Your task to perform on an android device: open the mobile data screen to see how much data has been used Image 0: 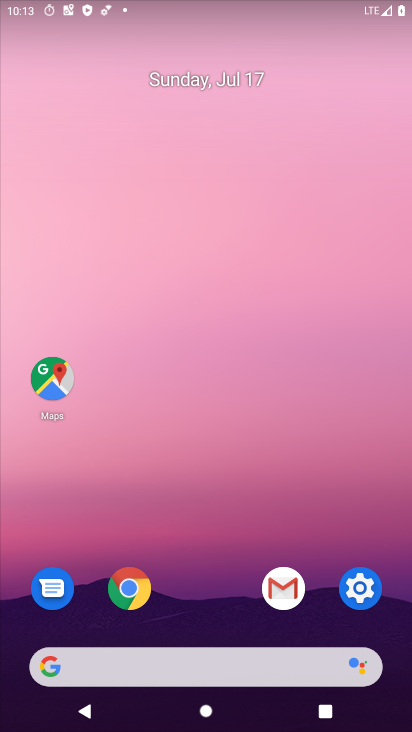
Step 0: press home button
Your task to perform on an android device: open the mobile data screen to see how much data has been used Image 1: 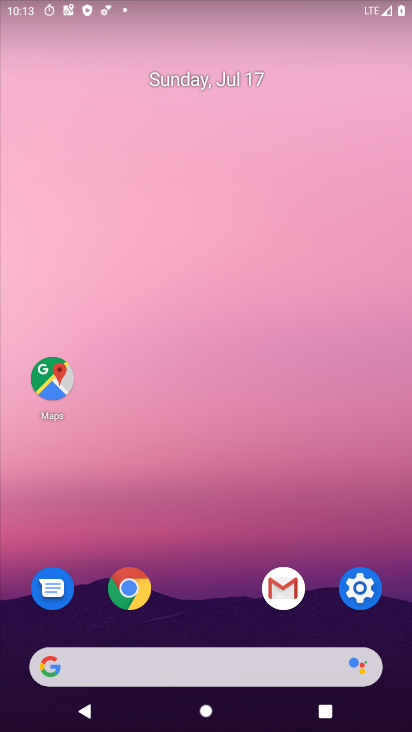
Step 1: click (371, 596)
Your task to perform on an android device: open the mobile data screen to see how much data has been used Image 2: 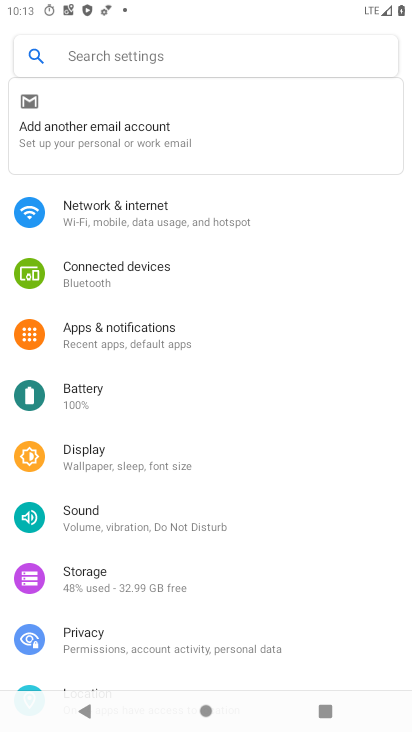
Step 2: click (139, 43)
Your task to perform on an android device: open the mobile data screen to see how much data has been used Image 3: 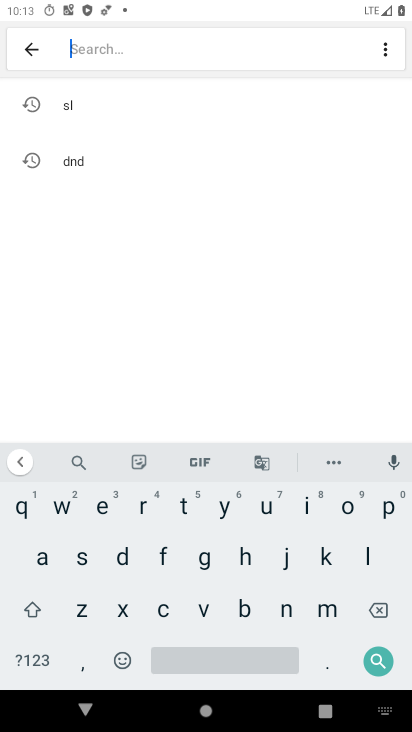
Step 3: click (110, 546)
Your task to perform on an android device: open the mobile data screen to see how much data has been used Image 4: 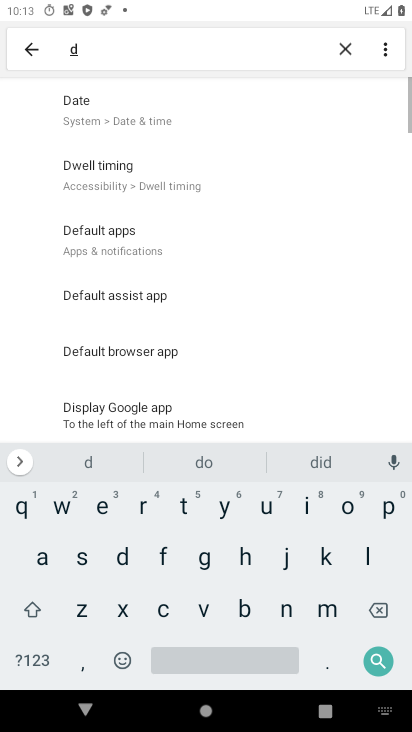
Step 4: click (35, 549)
Your task to perform on an android device: open the mobile data screen to see how much data has been used Image 5: 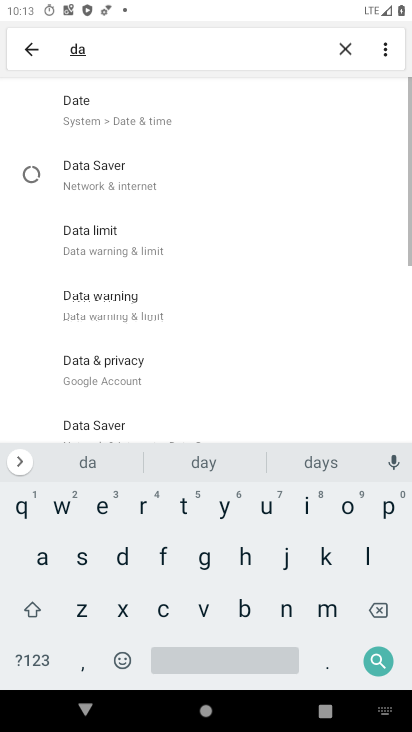
Step 5: click (189, 498)
Your task to perform on an android device: open the mobile data screen to see how much data has been used Image 6: 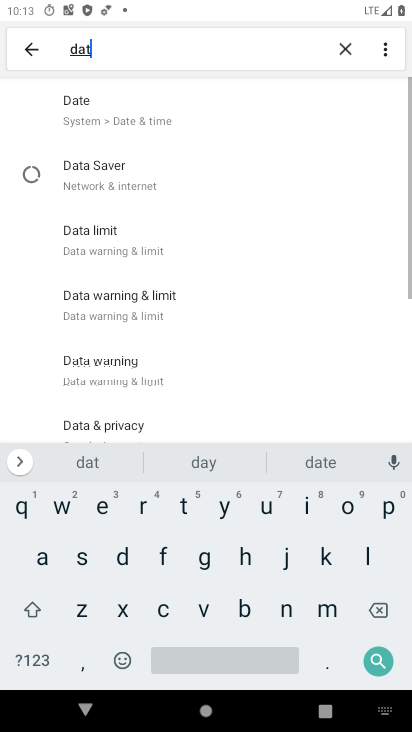
Step 6: click (46, 548)
Your task to perform on an android device: open the mobile data screen to see how much data has been used Image 7: 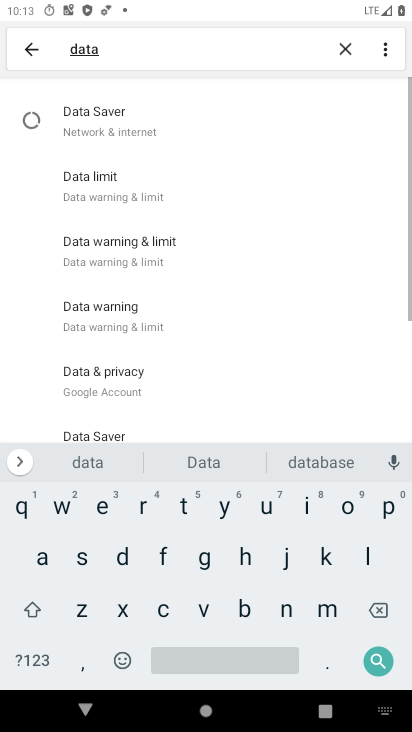
Step 7: click (204, 650)
Your task to perform on an android device: open the mobile data screen to see how much data has been used Image 8: 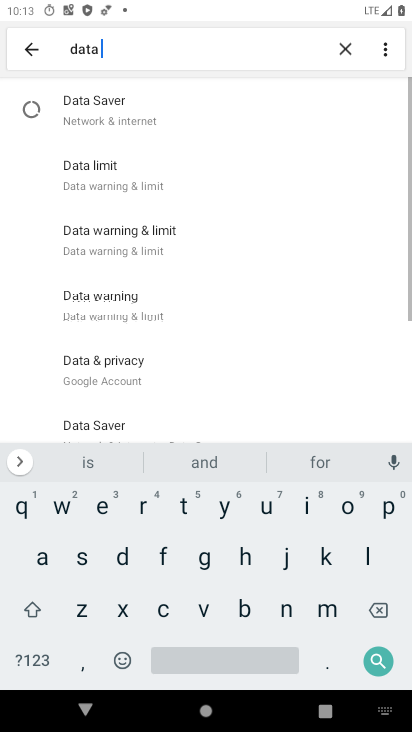
Step 8: click (263, 515)
Your task to perform on an android device: open the mobile data screen to see how much data has been used Image 9: 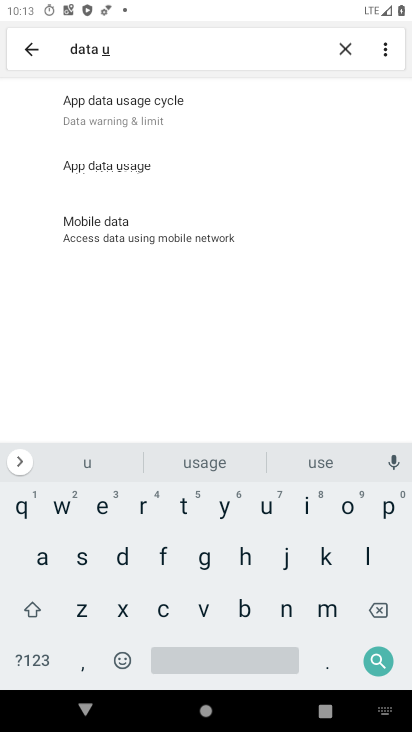
Step 9: click (179, 163)
Your task to perform on an android device: open the mobile data screen to see how much data has been used Image 10: 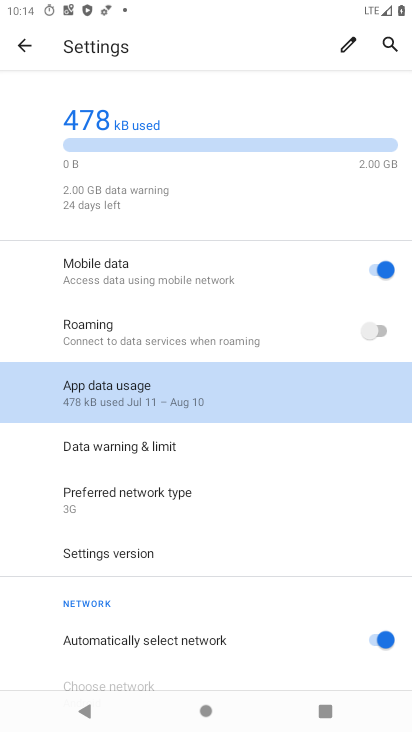
Step 10: click (177, 405)
Your task to perform on an android device: open the mobile data screen to see how much data has been used Image 11: 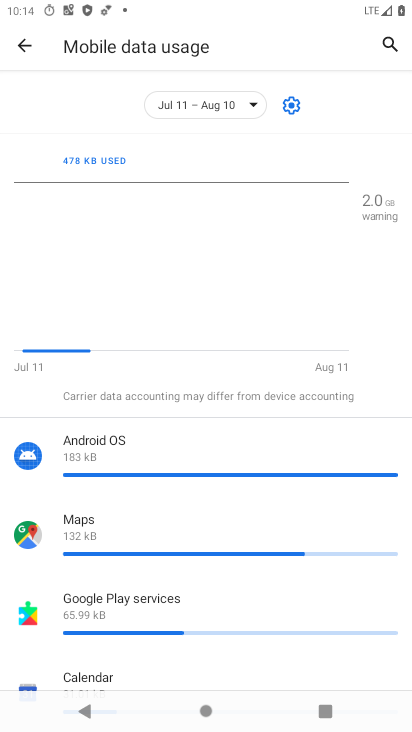
Step 11: task complete